Your task to perform on an android device: turn on improve location accuracy Image 0: 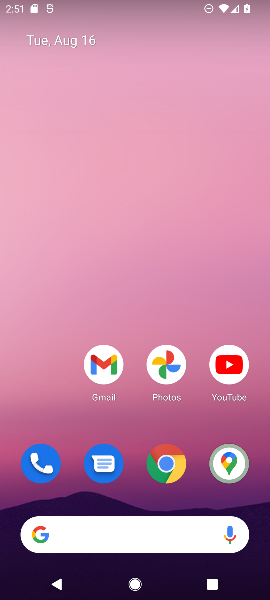
Step 0: drag from (150, 510) to (83, 39)
Your task to perform on an android device: turn on improve location accuracy Image 1: 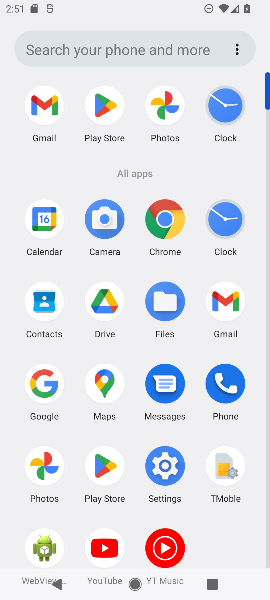
Step 1: click (171, 469)
Your task to perform on an android device: turn on improve location accuracy Image 2: 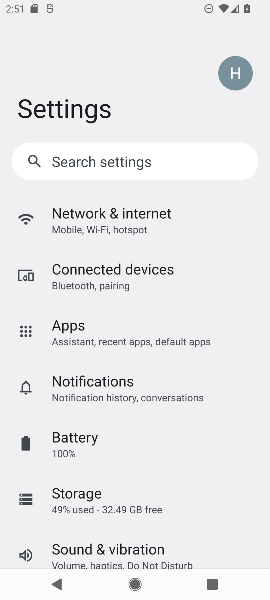
Step 2: drag from (189, 469) to (144, 89)
Your task to perform on an android device: turn on improve location accuracy Image 3: 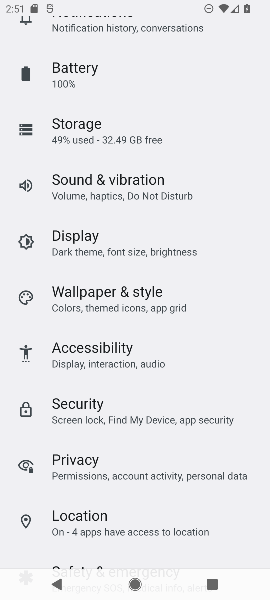
Step 3: click (63, 518)
Your task to perform on an android device: turn on improve location accuracy Image 4: 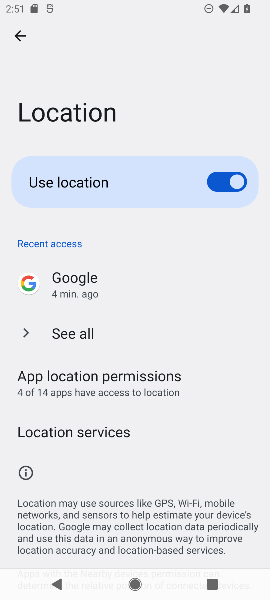
Step 4: click (63, 429)
Your task to perform on an android device: turn on improve location accuracy Image 5: 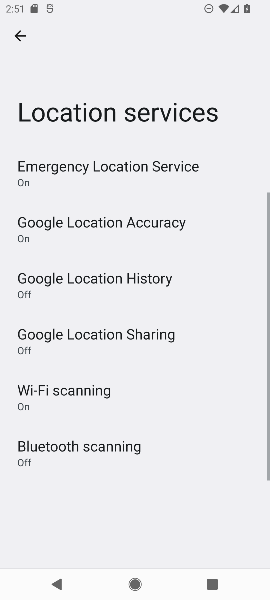
Step 5: click (163, 220)
Your task to perform on an android device: turn on improve location accuracy Image 6: 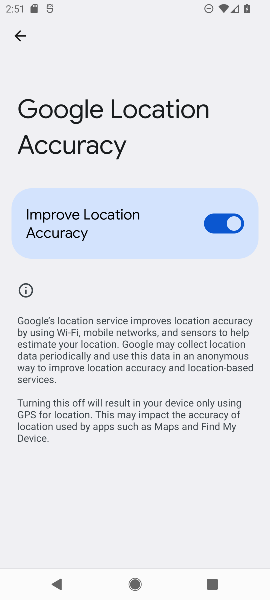
Step 6: task complete